Your task to perform on an android device: open wifi settings Image 0: 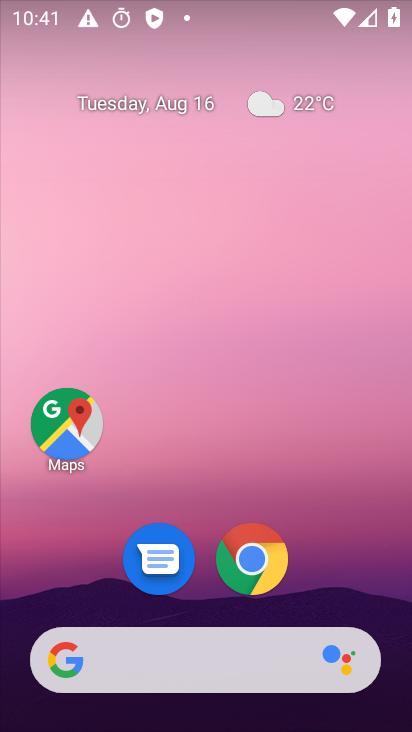
Step 0: drag from (208, 569) to (151, 193)
Your task to perform on an android device: open wifi settings Image 1: 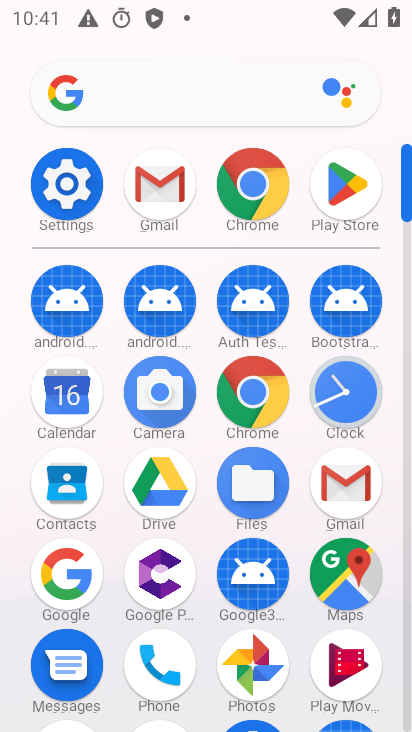
Step 1: click (67, 184)
Your task to perform on an android device: open wifi settings Image 2: 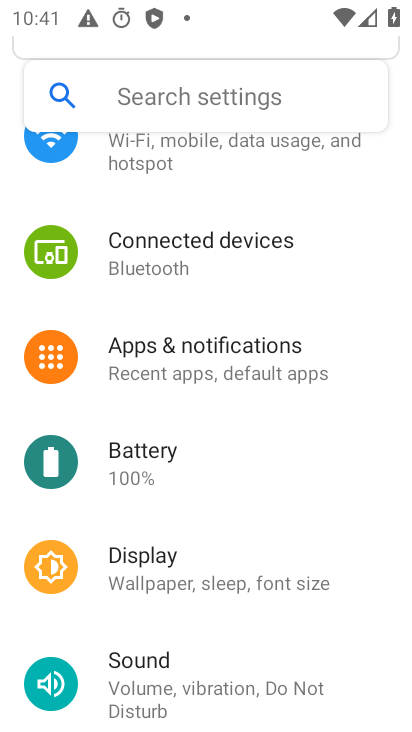
Step 2: click (158, 160)
Your task to perform on an android device: open wifi settings Image 3: 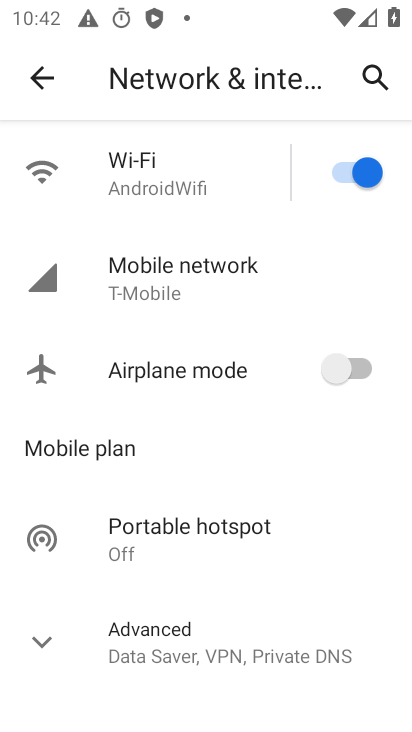
Step 3: click (149, 168)
Your task to perform on an android device: open wifi settings Image 4: 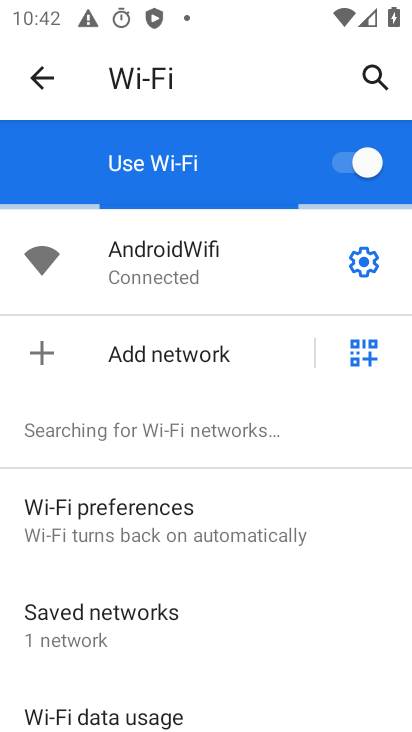
Step 4: task complete